Your task to perform on an android device: Go to wifi settings Image 0: 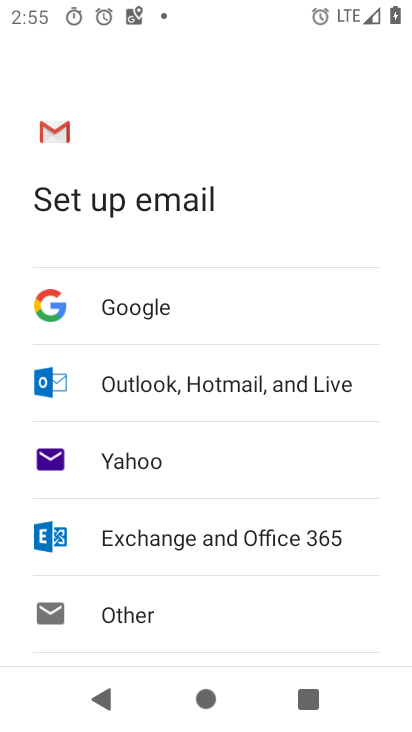
Step 0: press home button
Your task to perform on an android device: Go to wifi settings Image 1: 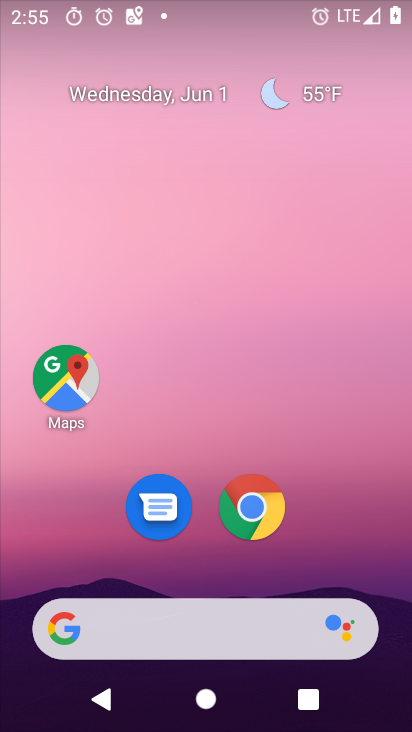
Step 1: drag from (312, 587) to (322, 2)
Your task to perform on an android device: Go to wifi settings Image 2: 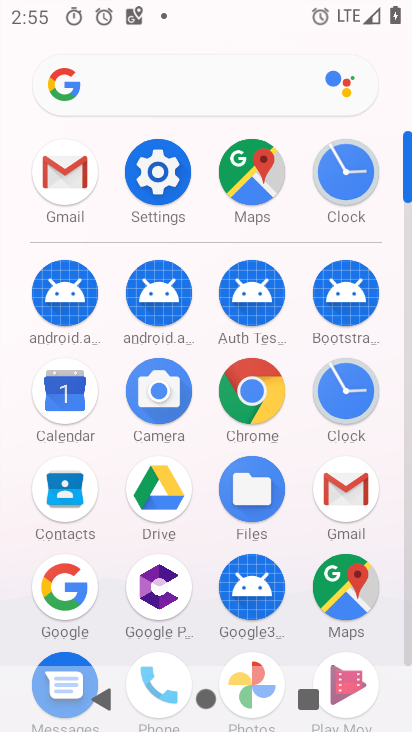
Step 2: click (145, 176)
Your task to perform on an android device: Go to wifi settings Image 3: 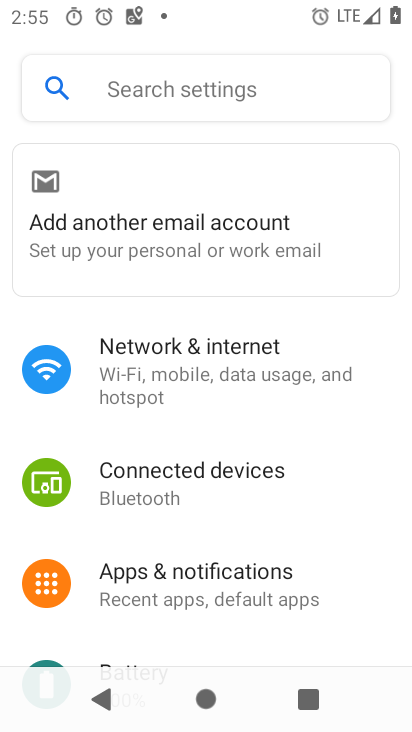
Step 3: click (160, 358)
Your task to perform on an android device: Go to wifi settings Image 4: 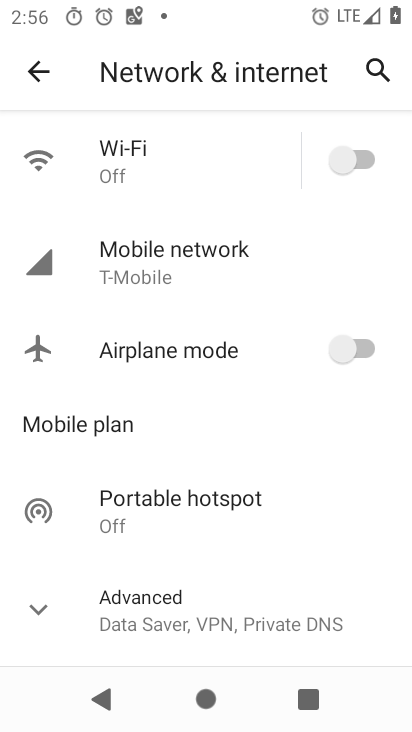
Step 4: click (40, 166)
Your task to perform on an android device: Go to wifi settings Image 5: 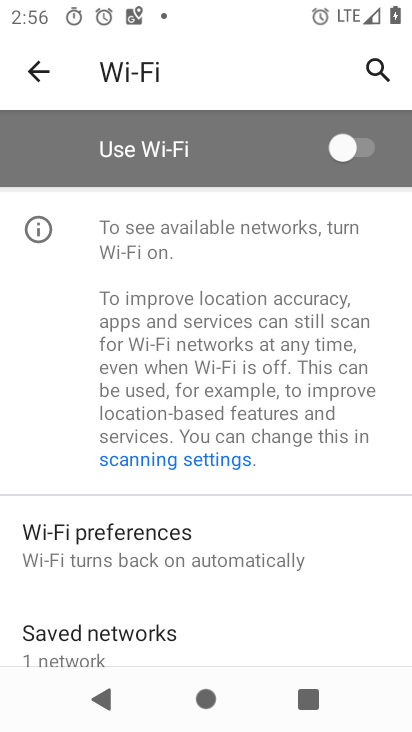
Step 5: task complete